Your task to perform on an android device: star an email in the gmail app Image 0: 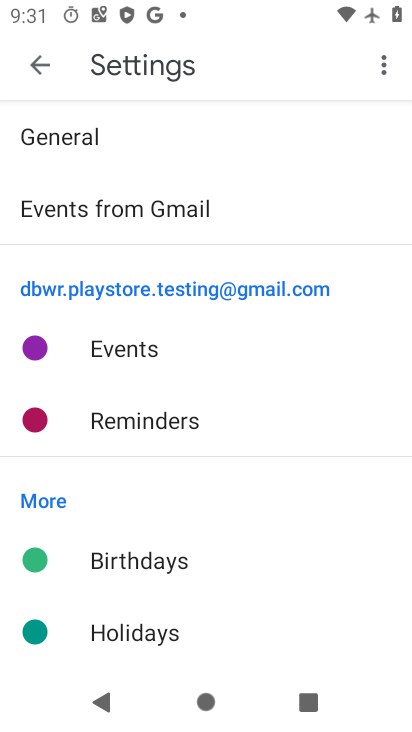
Step 0: press home button
Your task to perform on an android device: star an email in the gmail app Image 1: 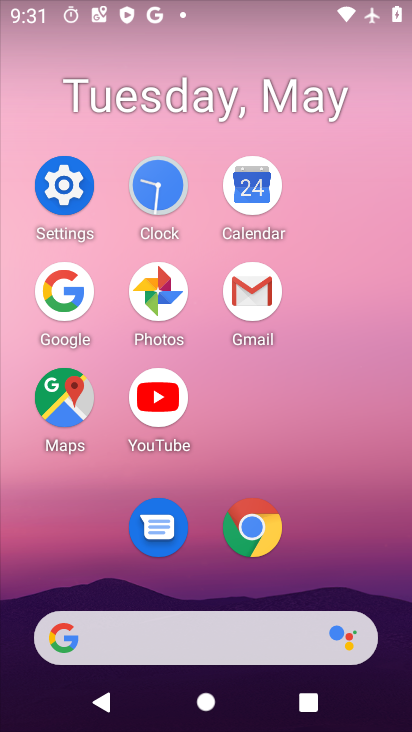
Step 1: click (248, 288)
Your task to perform on an android device: star an email in the gmail app Image 2: 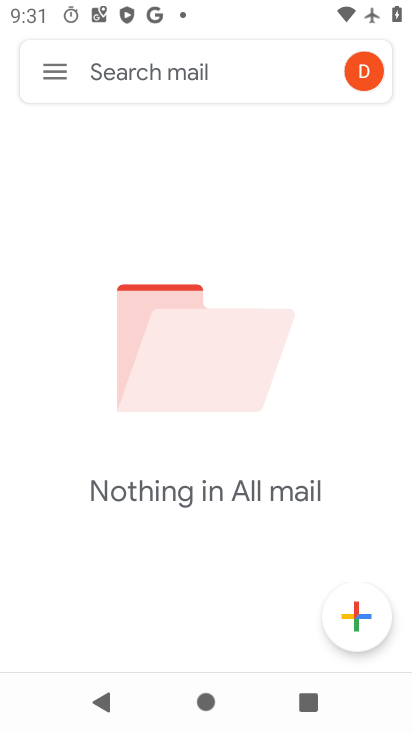
Step 2: click (51, 78)
Your task to perform on an android device: star an email in the gmail app Image 3: 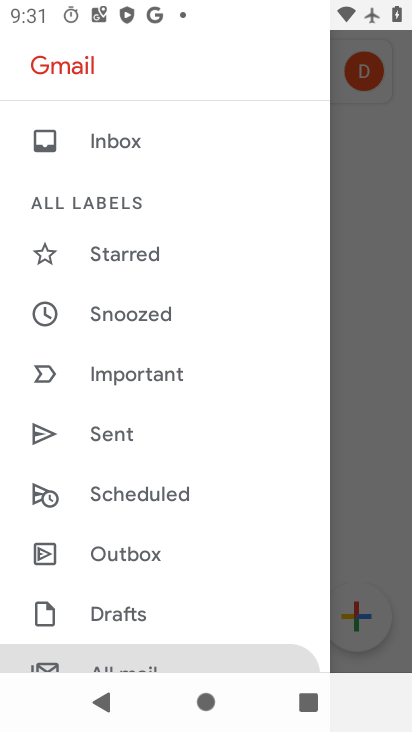
Step 3: drag from (197, 459) to (209, 160)
Your task to perform on an android device: star an email in the gmail app Image 4: 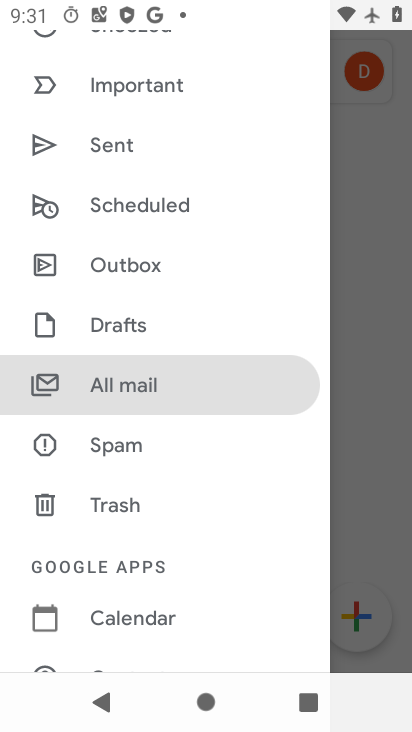
Step 4: click (233, 391)
Your task to perform on an android device: star an email in the gmail app Image 5: 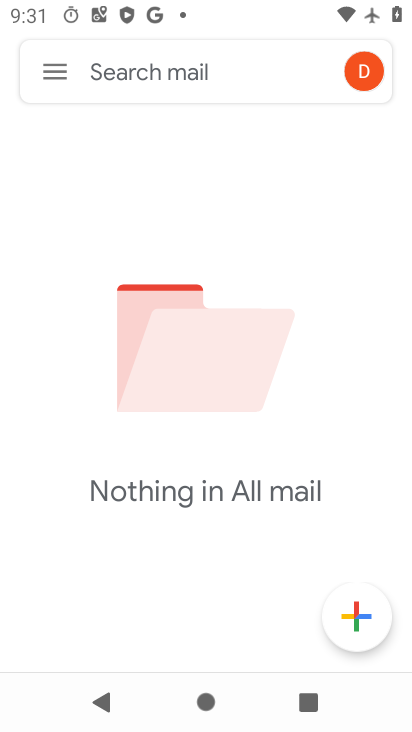
Step 5: task complete